Your task to perform on an android device: Add "usb-b" to the cart on bestbuy.com Image 0: 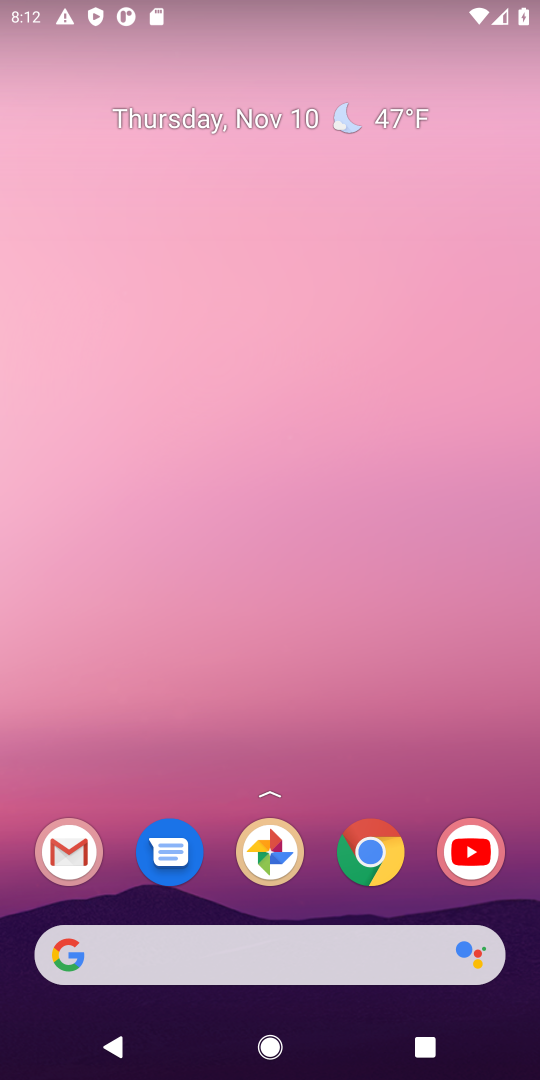
Step 0: press home button
Your task to perform on an android device: Add "usb-b" to the cart on bestbuy.com Image 1: 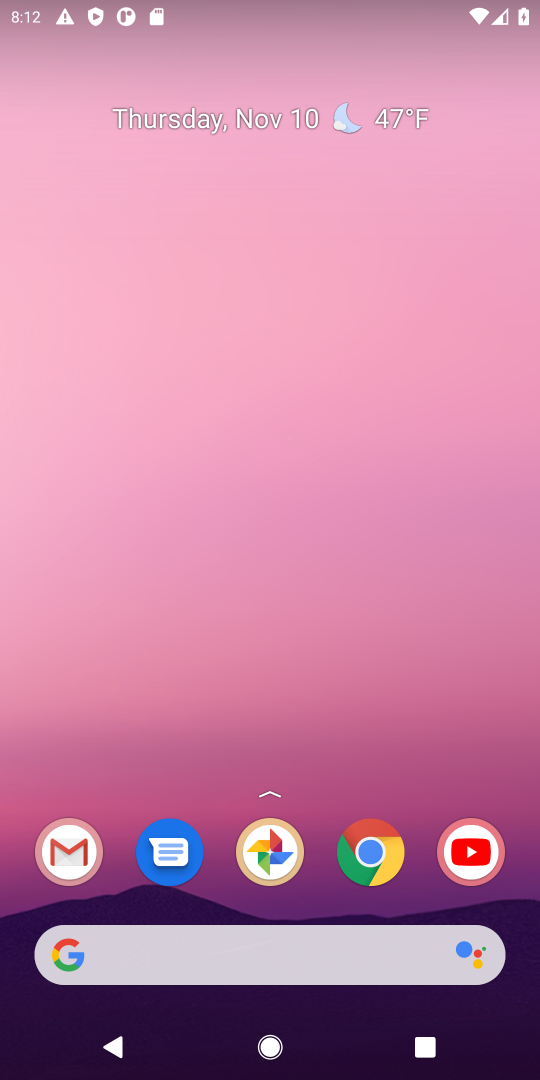
Step 1: click (373, 861)
Your task to perform on an android device: Add "usb-b" to the cart on bestbuy.com Image 2: 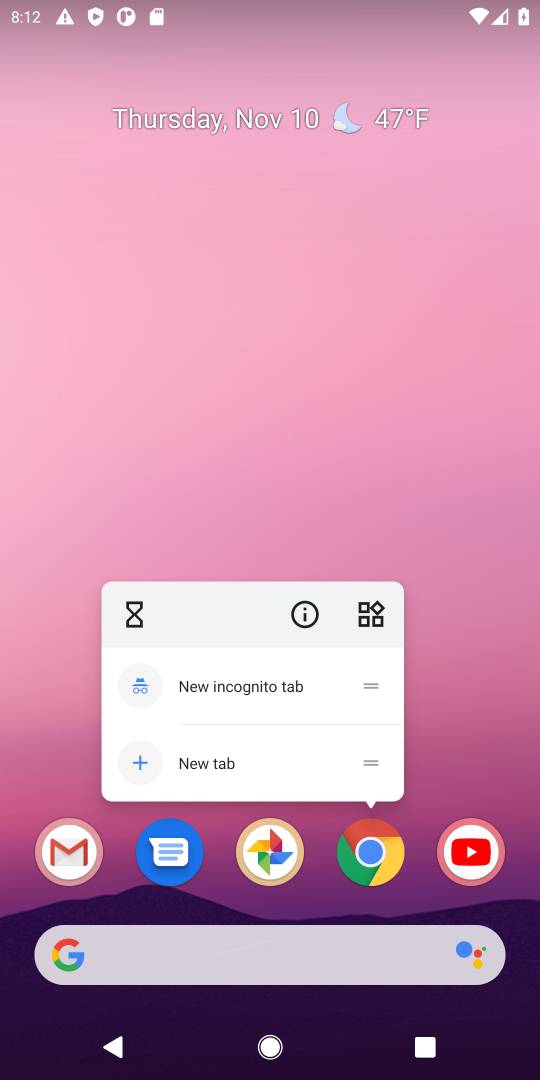
Step 2: click (375, 845)
Your task to perform on an android device: Add "usb-b" to the cart on bestbuy.com Image 3: 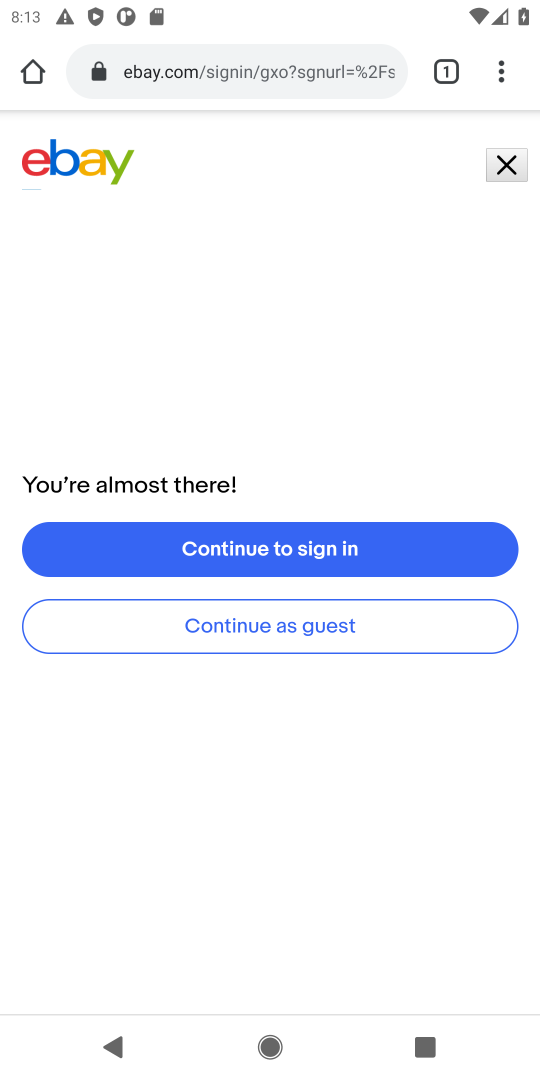
Step 3: click (266, 62)
Your task to perform on an android device: Add "usb-b" to the cart on bestbuy.com Image 4: 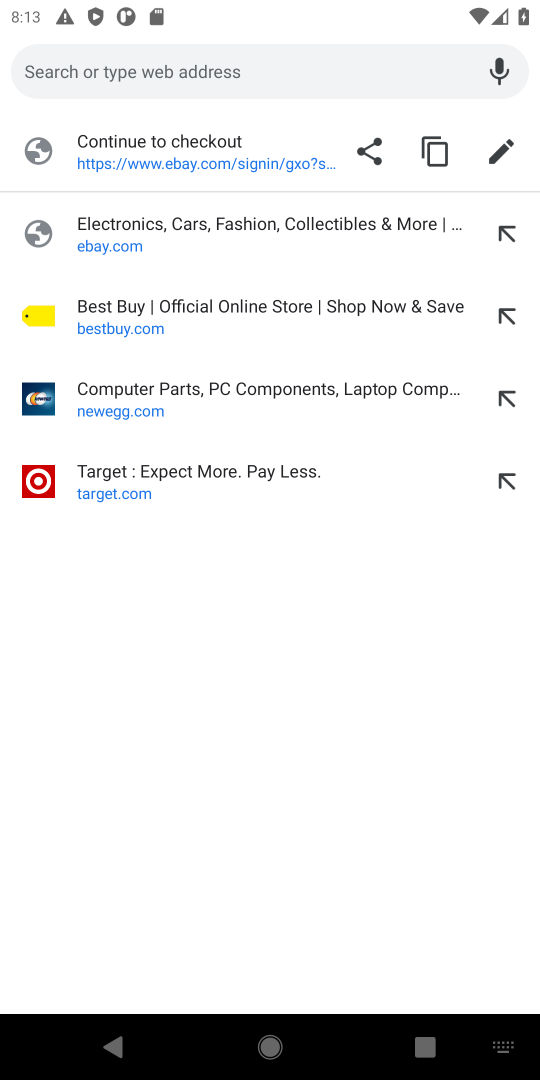
Step 4: click (85, 319)
Your task to perform on an android device: Add "usb-b" to the cart on bestbuy.com Image 5: 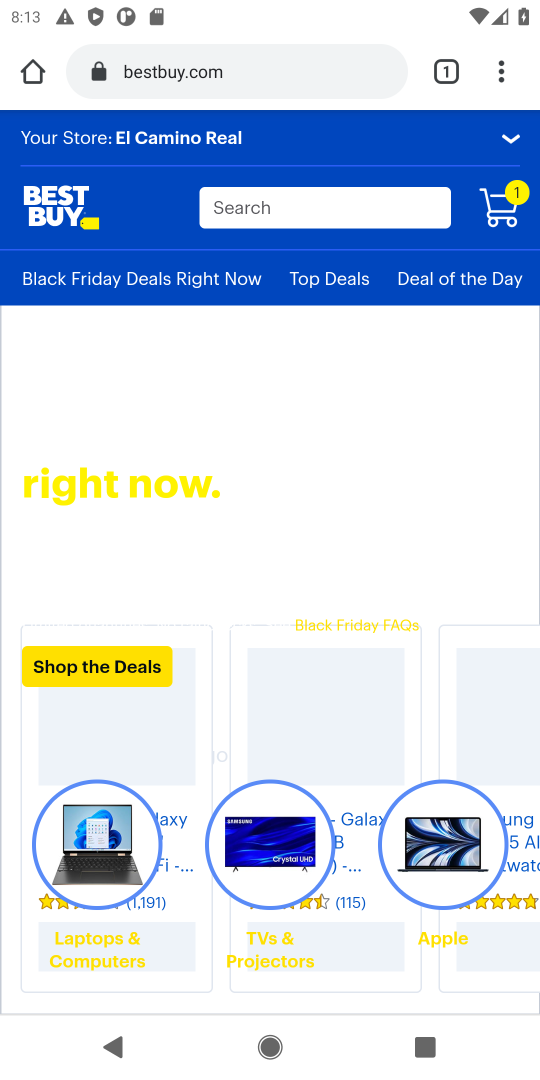
Step 5: click (283, 205)
Your task to perform on an android device: Add "usb-b" to the cart on bestbuy.com Image 6: 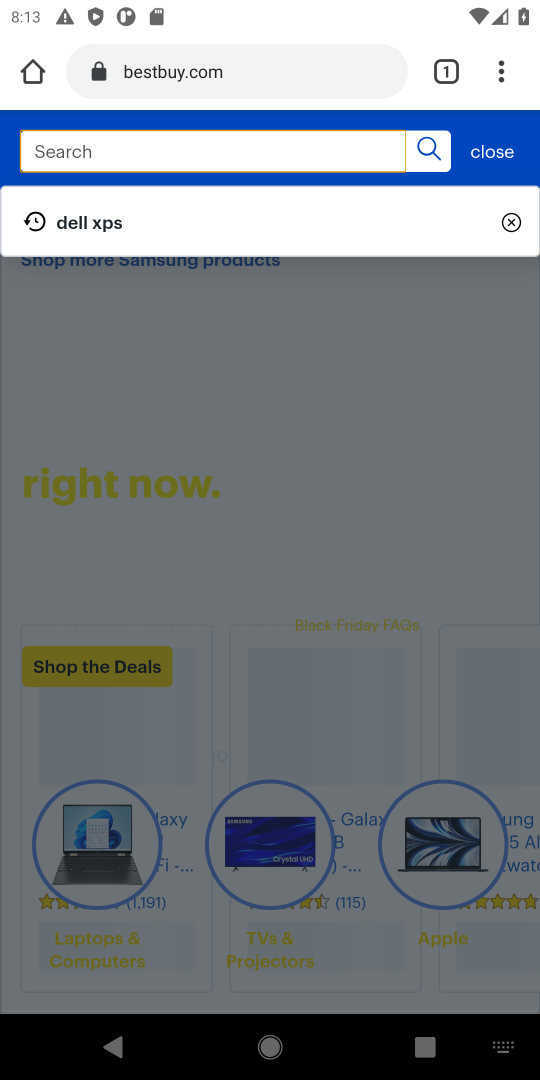
Step 6: type "usb-b"
Your task to perform on an android device: Add "usb-b" to the cart on bestbuy.com Image 7: 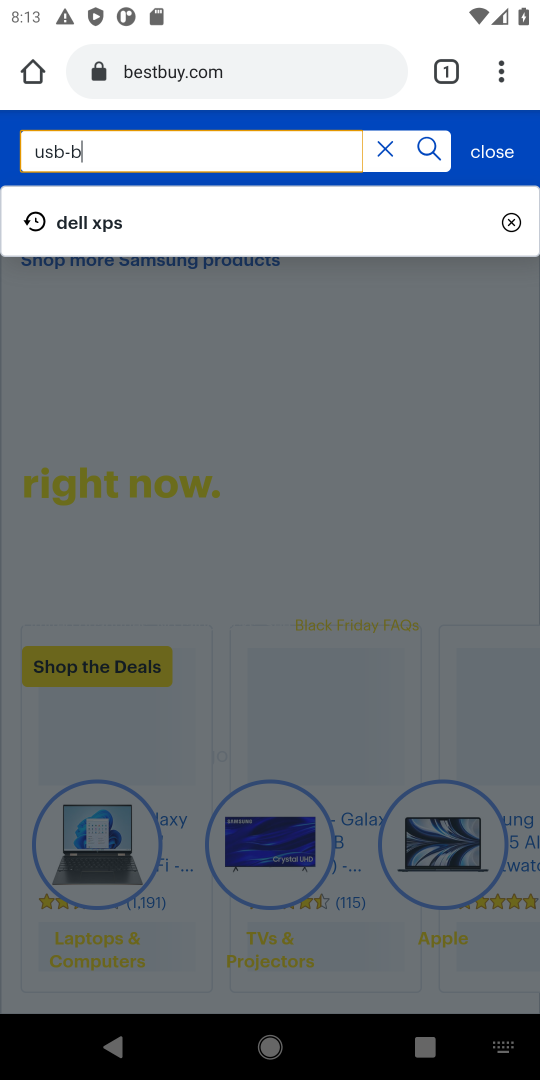
Step 7: press enter
Your task to perform on an android device: Add "usb-b" to the cart on bestbuy.com Image 8: 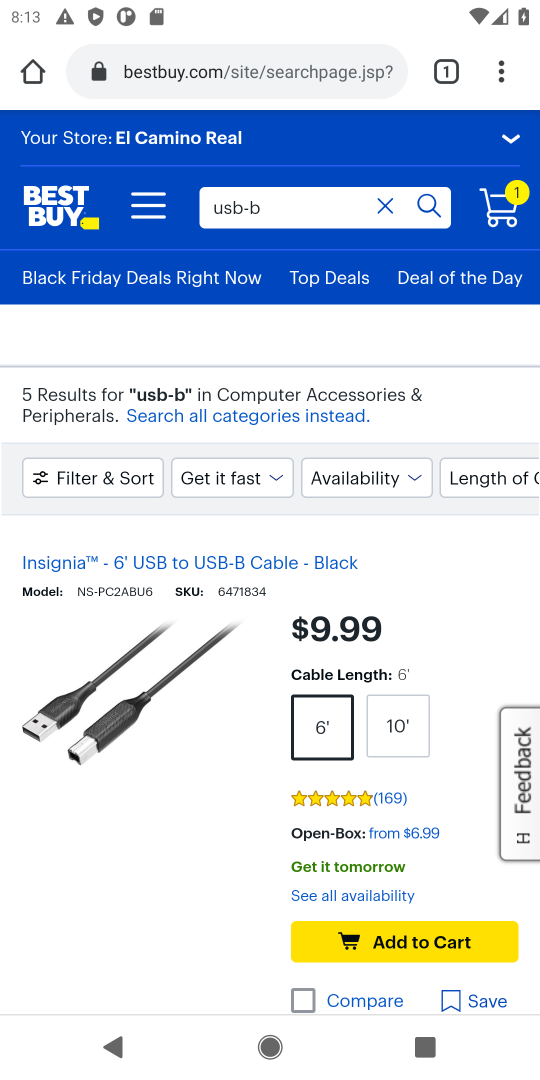
Step 8: task complete